Your task to perform on an android device: star an email in the gmail app Image 0: 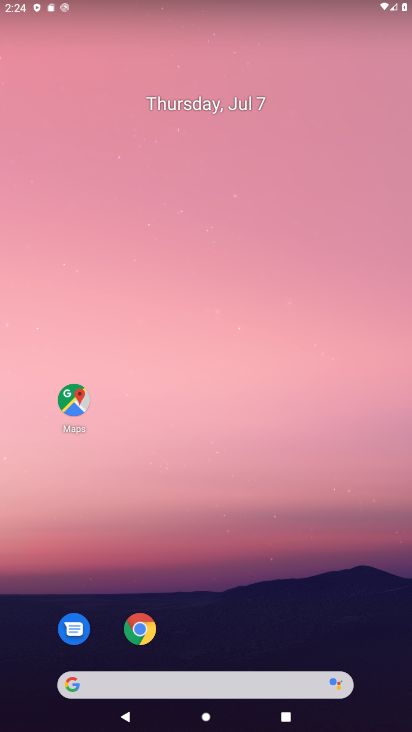
Step 0: drag from (206, 548) to (255, 97)
Your task to perform on an android device: star an email in the gmail app Image 1: 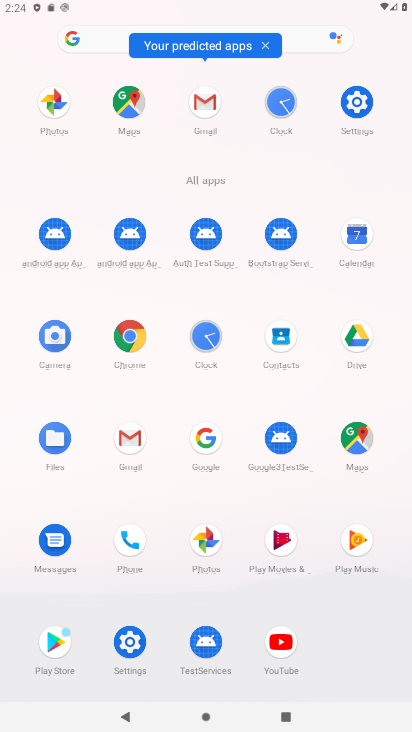
Step 1: click (199, 113)
Your task to perform on an android device: star an email in the gmail app Image 2: 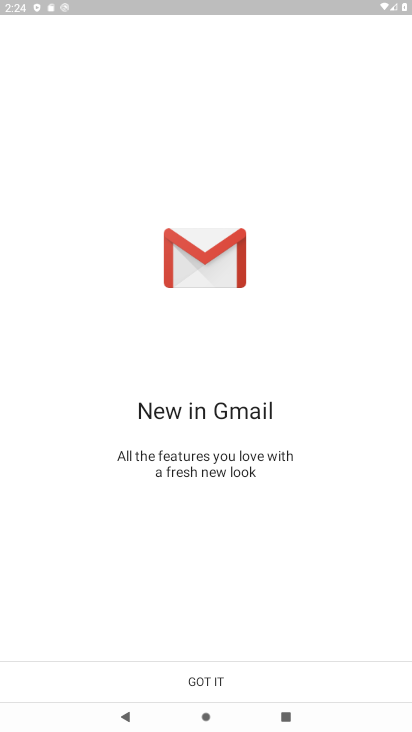
Step 2: click (141, 686)
Your task to perform on an android device: star an email in the gmail app Image 3: 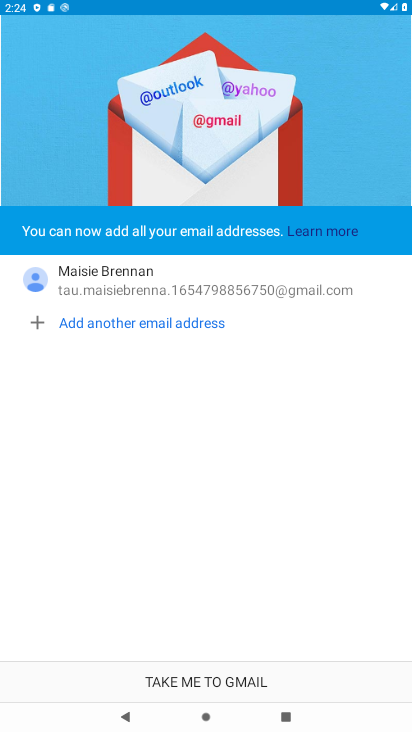
Step 3: click (141, 686)
Your task to perform on an android device: star an email in the gmail app Image 4: 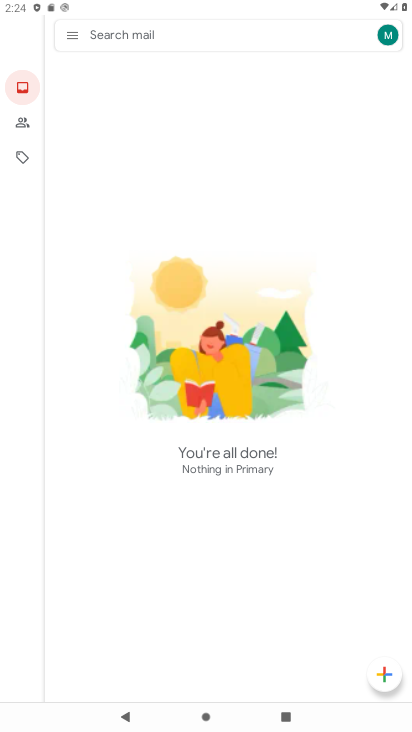
Step 4: click (77, 33)
Your task to perform on an android device: star an email in the gmail app Image 5: 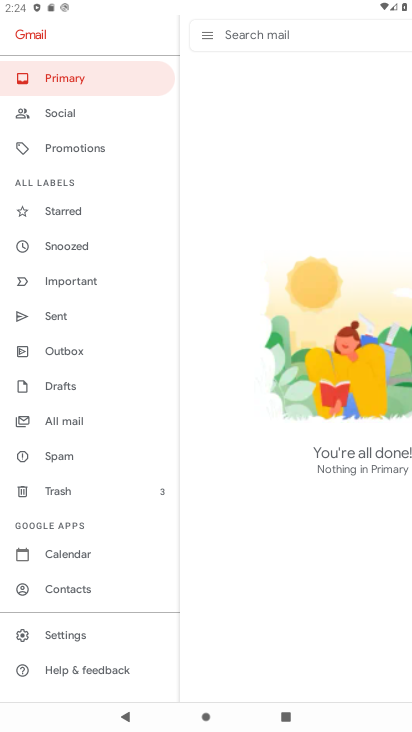
Step 5: click (73, 426)
Your task to perform on an android device: star an email in the gmail app Image 6: 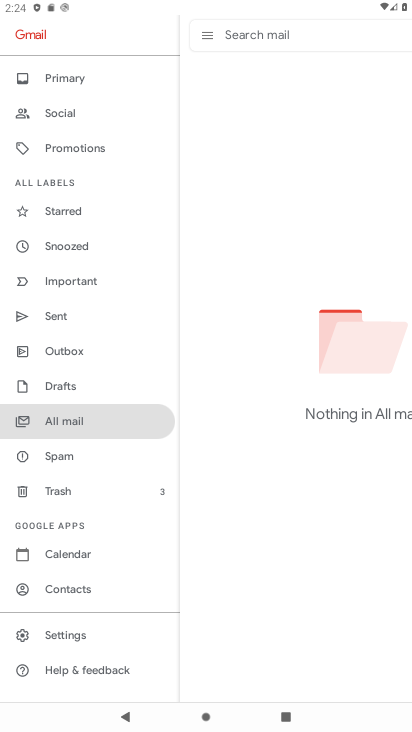
Step 6: task complete